Your task to perform on an android device: turn off picture-in-picture Image 0: 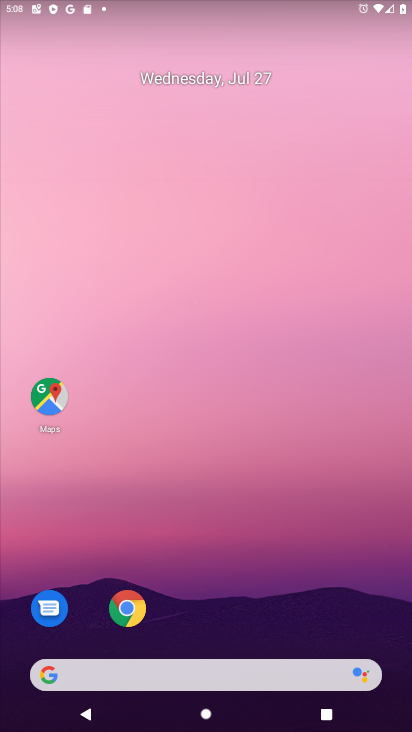
Step 0: drag from (244, 667) to (357, 129)
Your task to perform on an android device: turn off picture-in-picture Image 1: 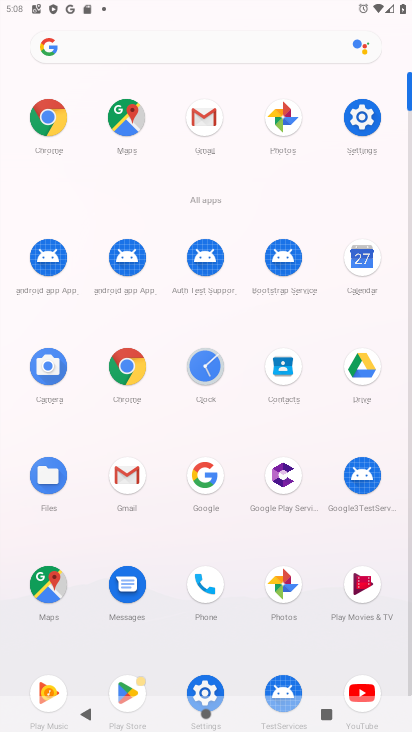
Step 1: click (371, 134)
Your task to perform on an android device: turn off picture-in-picture Image 2: 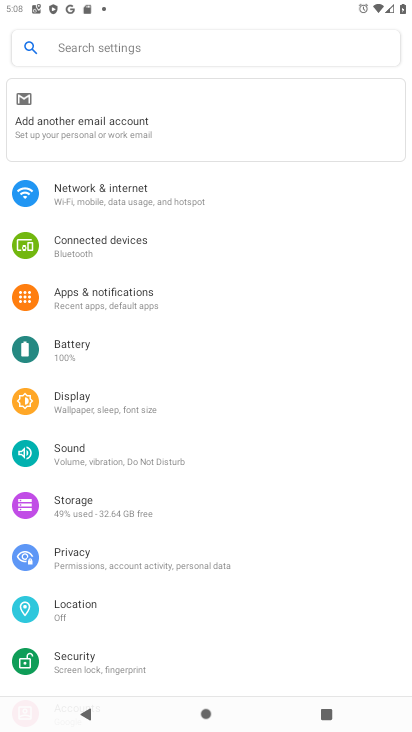
Step 2: click (91, 313)
Your task to perform on an android device: turn off picture-in-picture Image 3: 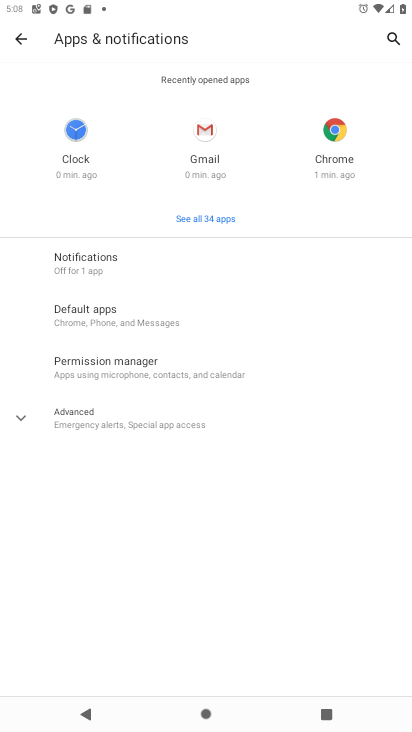
Step 3: click (121, 428)
Your task to perform on an android device: turn off picture-in-picture Image 4: 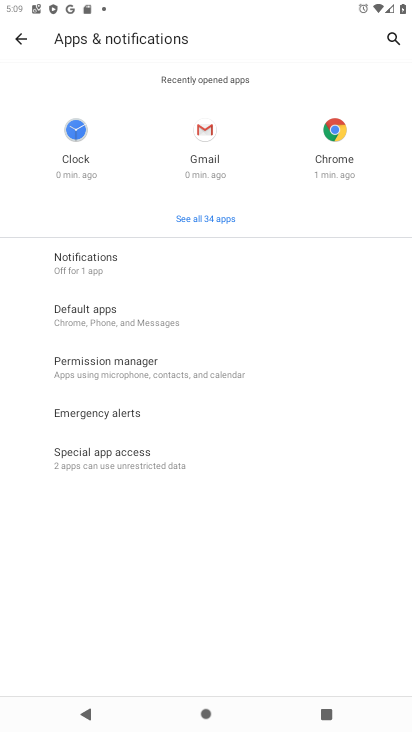
Step 4: click (165, 454)
Your task to perform on an android device: turn off picture-in-picture Image 5: 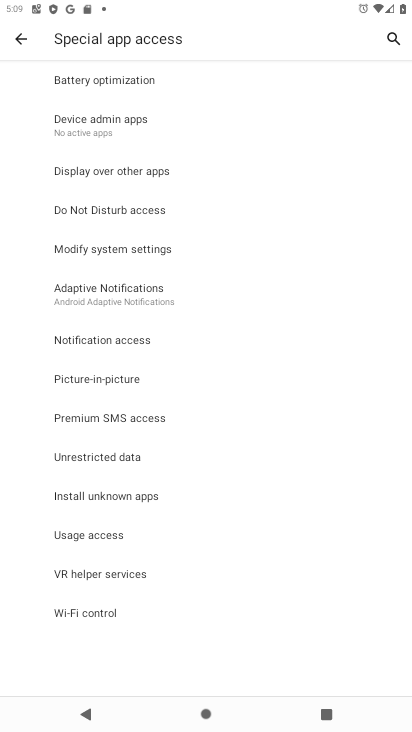
Step 5: click (66, 376)
Your task to perform on an android device: turn off picture-in-picture Image 6: 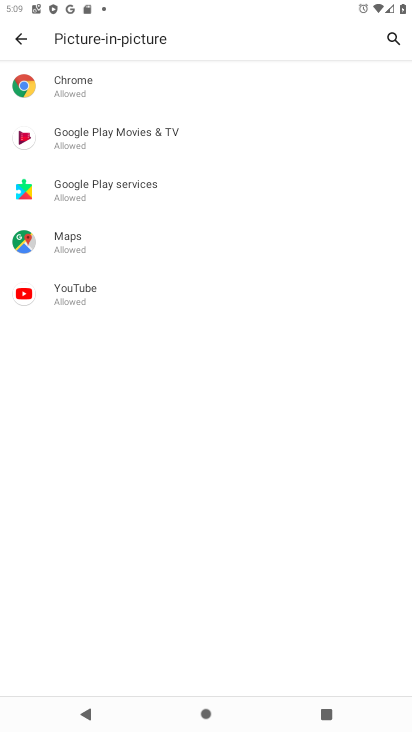
Step 6: task complete